Your task to perform on an android device: Open calendar and show me the first week of next month Image 0: 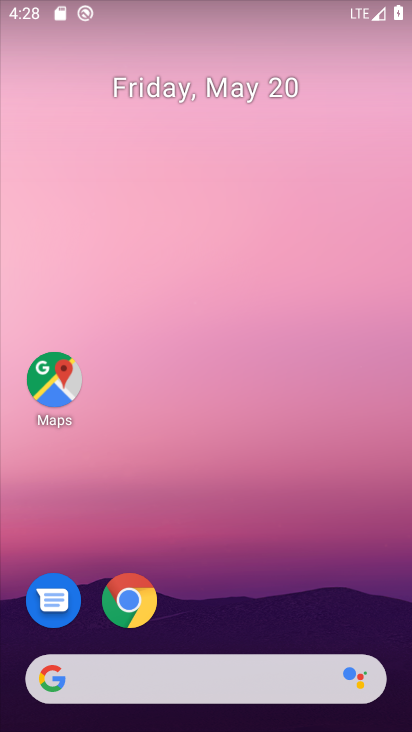
Step 0: drag from (342, 571) to (199, 63)
Your task to perform on an android device: Open calendar and show me the first week of next month Image 1: 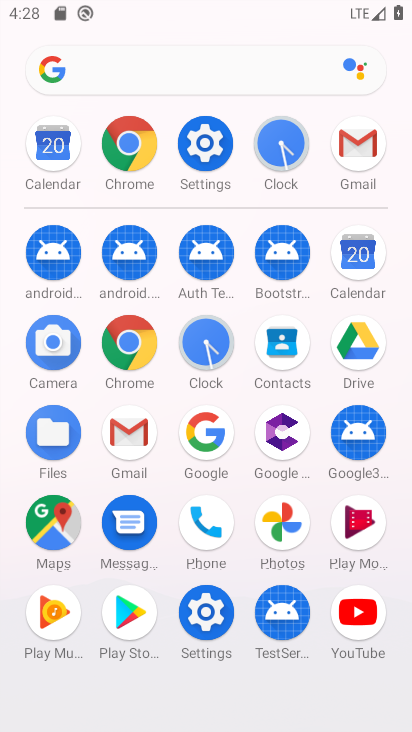
Step 1: click (373, 246)
Your task to perform on an android device: Open calendar and show me the first week of next month Image 2: 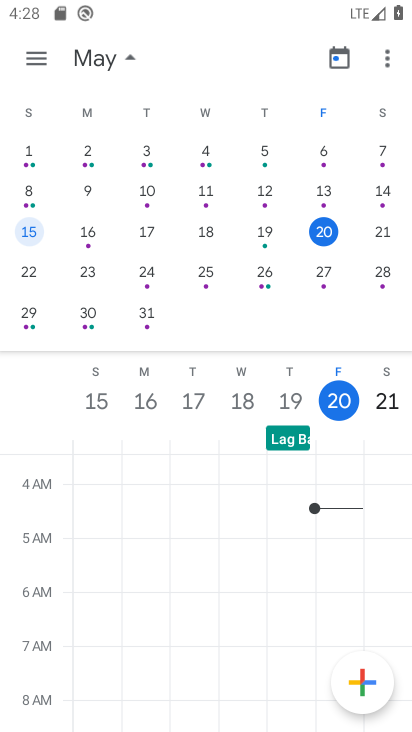
Step 2: task complete